Your task to perform on an android device: Go to Wikipedia Image 0: 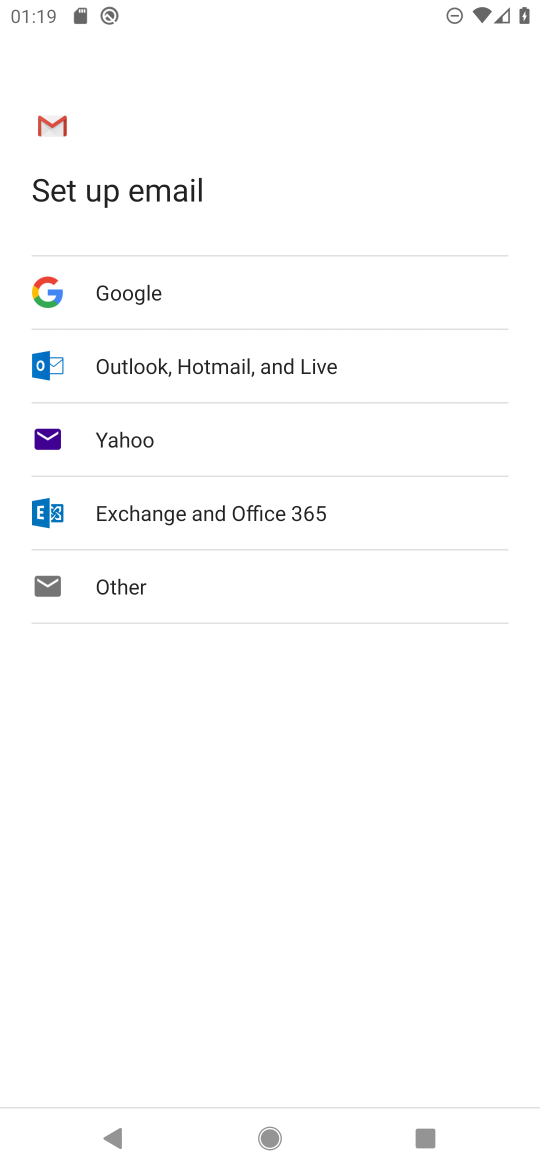
Step 0: press home button
Your task to perform on an android device: Go to Wikipedia Image 1: 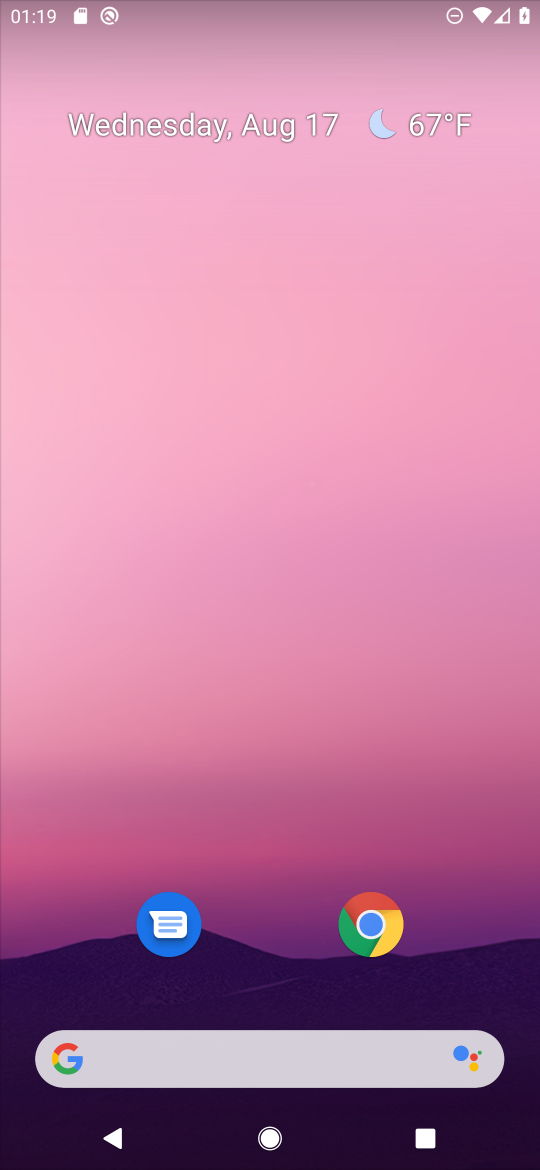
Step 1: drag from (253, 986) to (340, 112)
Your task to perform on an android device: Go to Wikipedia Image 2: 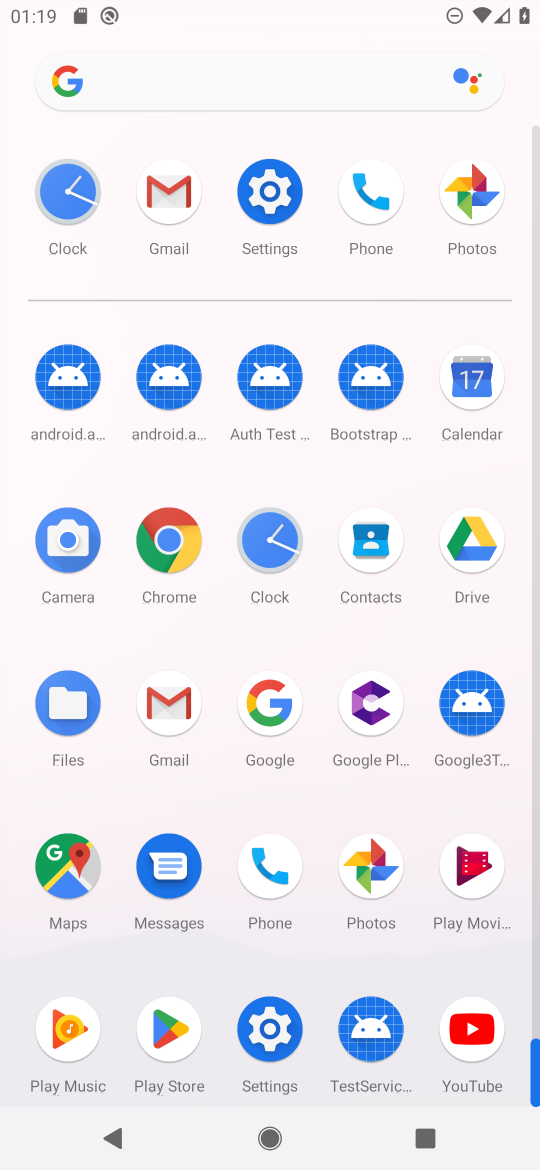
Step 2: click (164, 545)
Your task to perform on an android device: Go to Wikipedia Image 3: 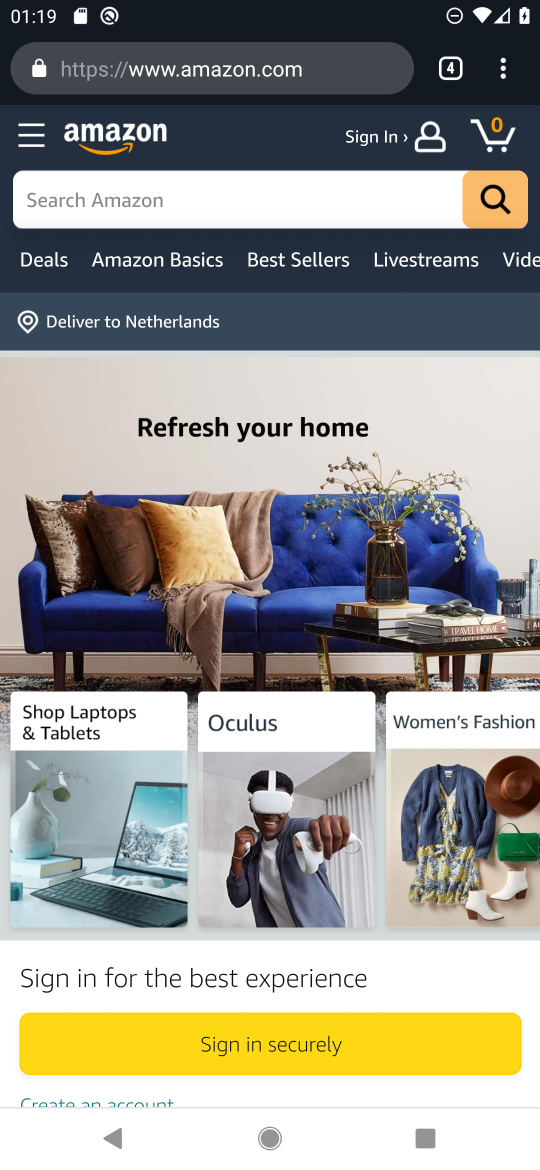
Step 3: click (458, 74)
Your task to perform on an android device: Go to Wikipedia Image 4: 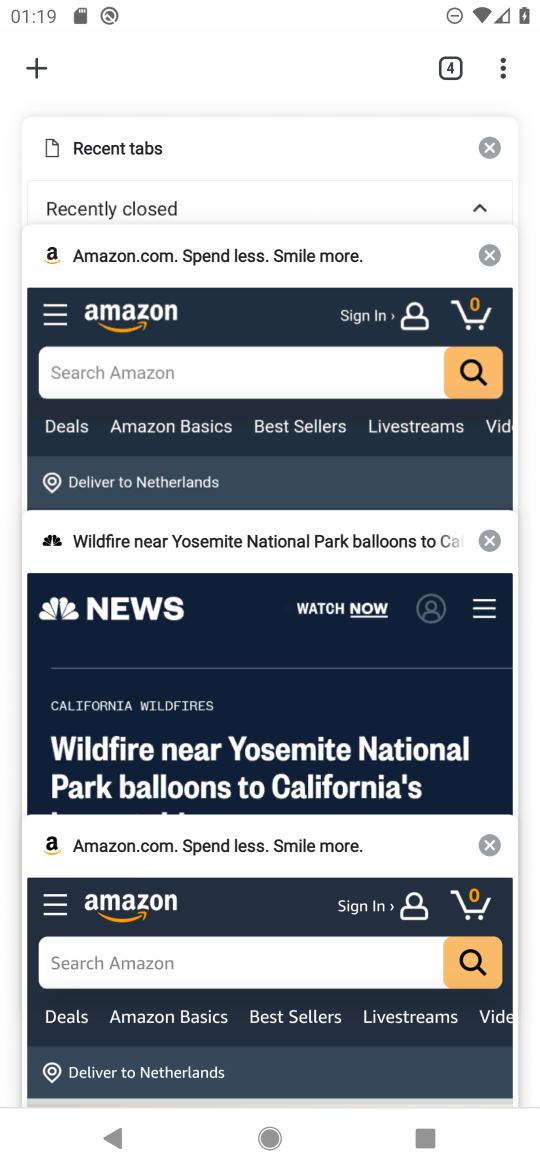
Step 4: click (37, 61)
Your task to perform on an android device: Go to Wikipedia Image 5: 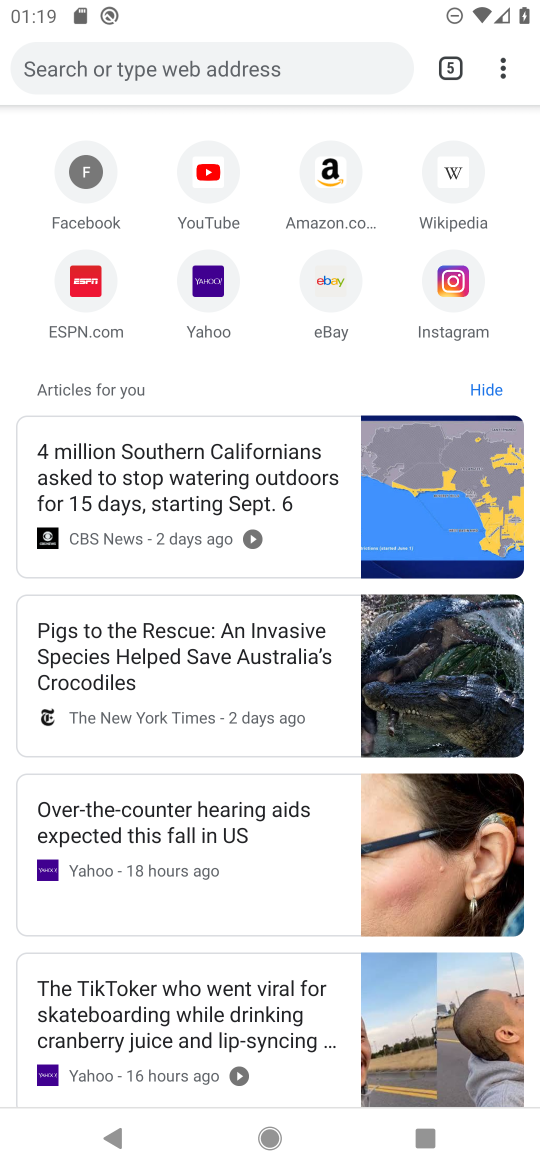
Step 5: click (451, 167)
Your task to perform on an android device: Go to Wikipedia Image 6: 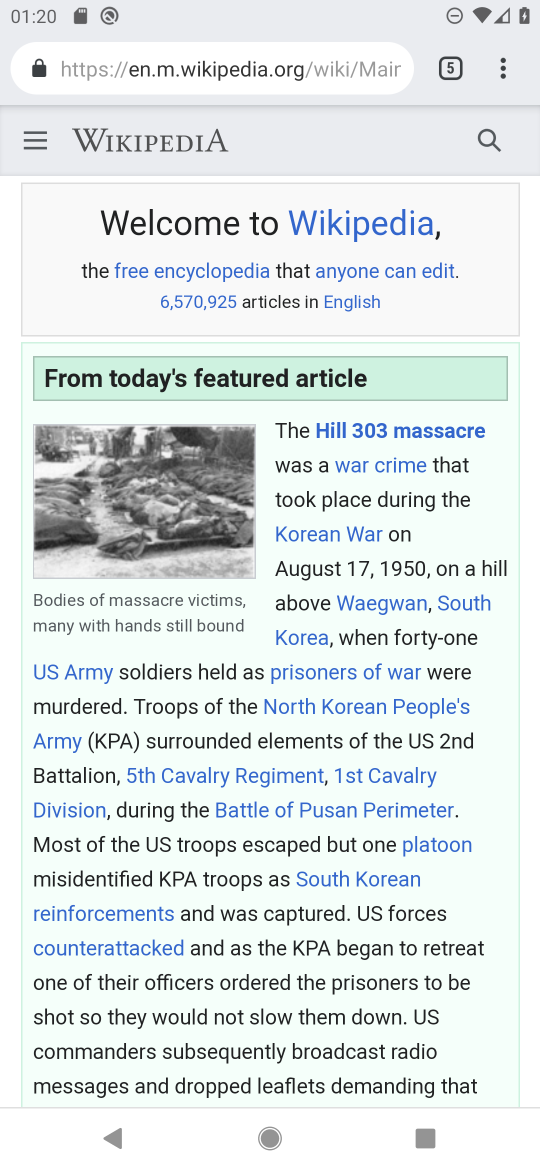
Step 6: task complete